Your task to perform on an android device: Go to Wikipedia Image 0: 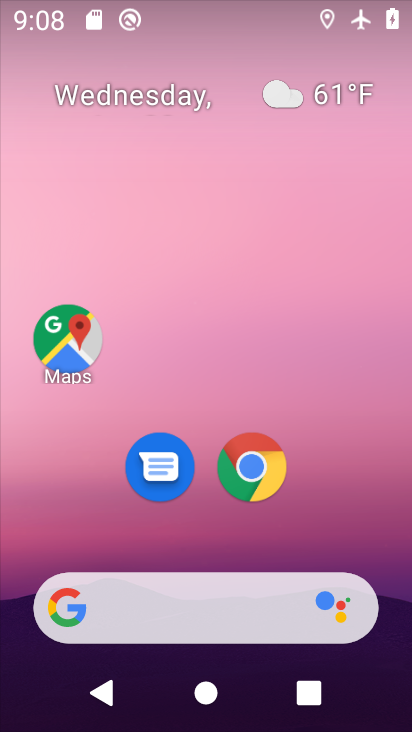
Step 0: drag from (343, 529) to (343, 129)
Your task to perform on an android device: Go to Wikipedia Image 1: 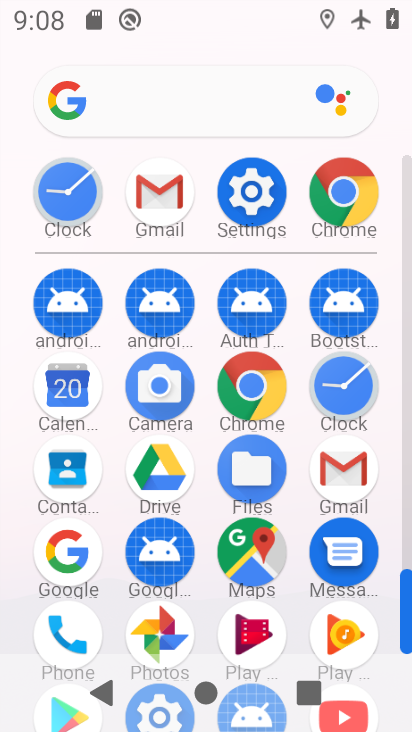
Step 1: click (329, 203)
Your task to perform on an android device: Go to Wikipedia Image 2: 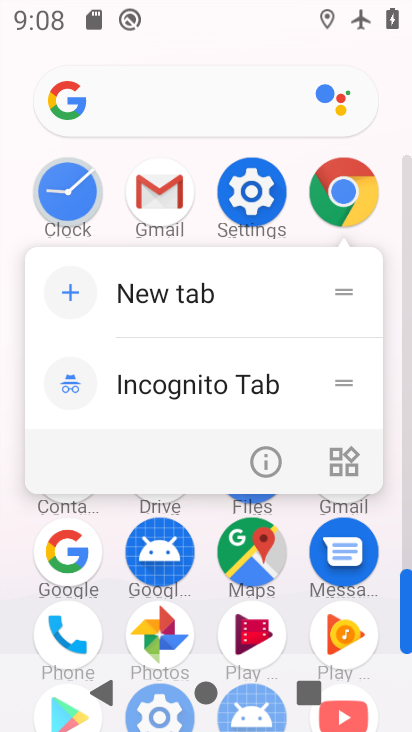
Step 2: click (329, 203)
Your task to perform on an android device: Go to Wikipedia Image 3: 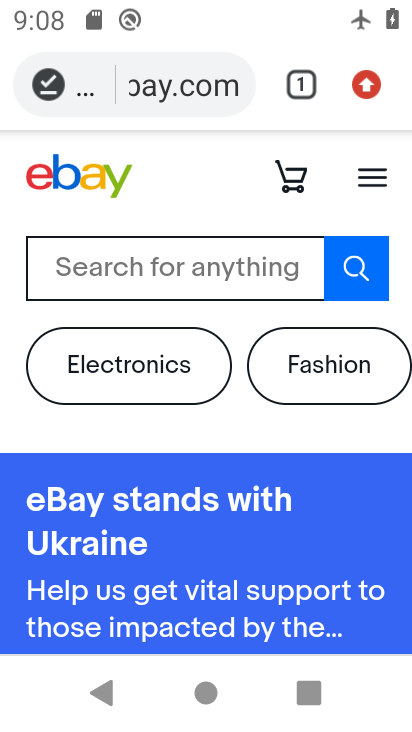
Step 3: click (367, 86)
Your task to perform on an android device: Go to Wikipedia Image 4: 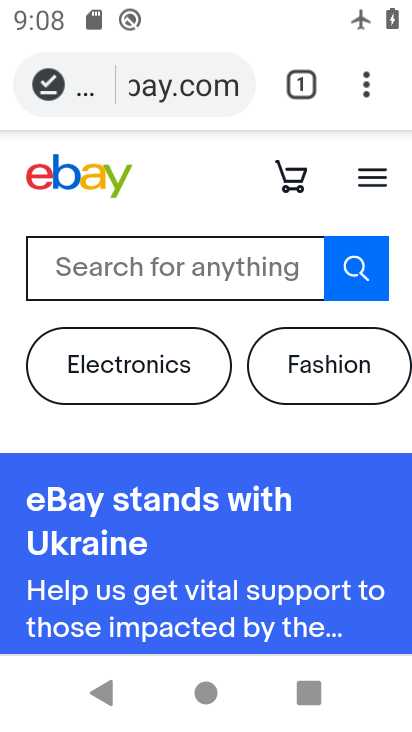
Step 4: drag from (367, 86) to (150, 258)
Your task to perform on an android device: Go to Wikipedia Image 5: 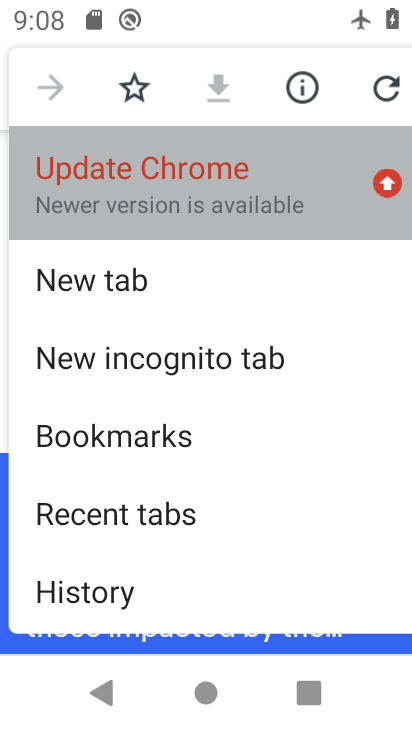
Step 5: click (117, 291)
Your task to perform on an android device: Go to Wikipedia Image 6: 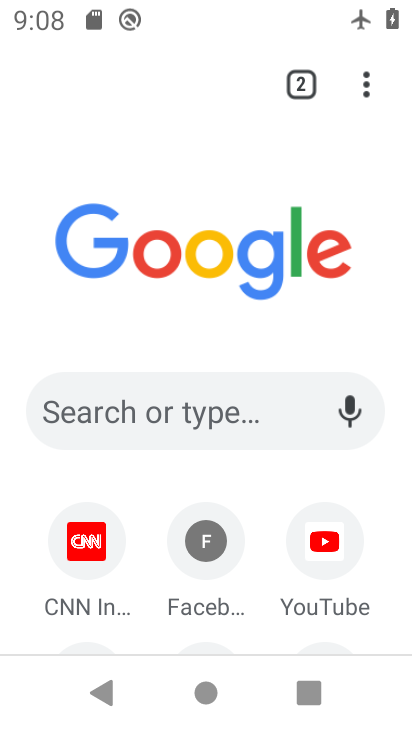
Step 6: drag from (384, 527) to (368, 168)
Your task to perform on an android device: Go to Wikipedia Image 7: 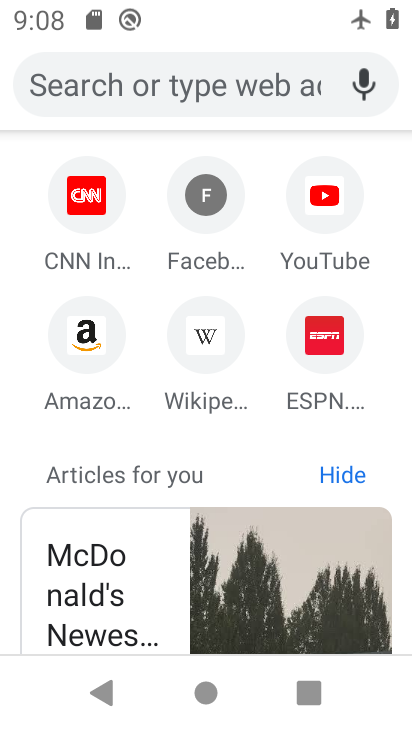
Step 7: click (210, 346)
Your task to perform on an android device: Go to Wikipedia Image 8: 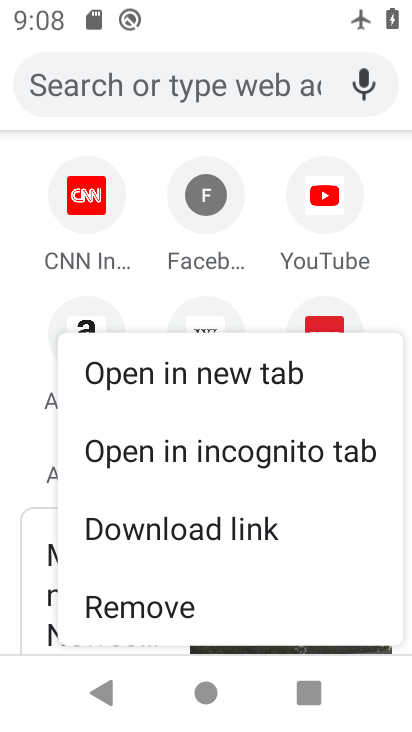
Step 8: click (380, 299)
Your task to perform on an android device: Go to Wikipedia Image 9: 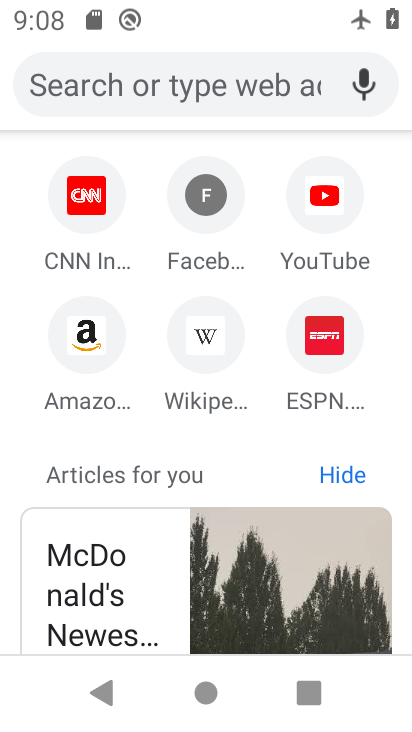
Step 9: click (195, 371)
Your task to perform on an android device: Go to Wikipedia Image 10: 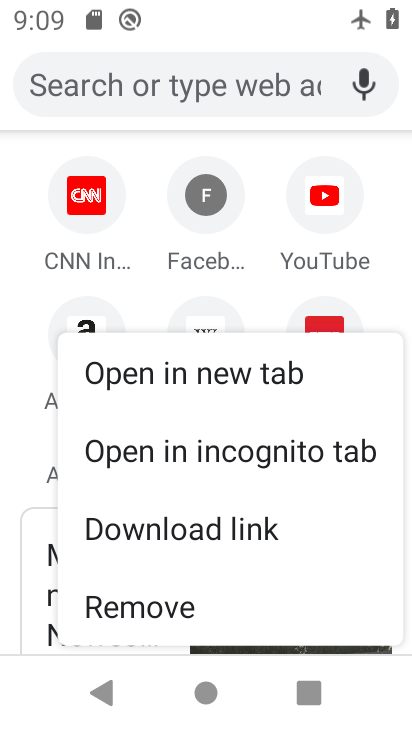
Step 10: click (154, 373)
Your task to perform on an android device: Go to Wikipedia Image 11: 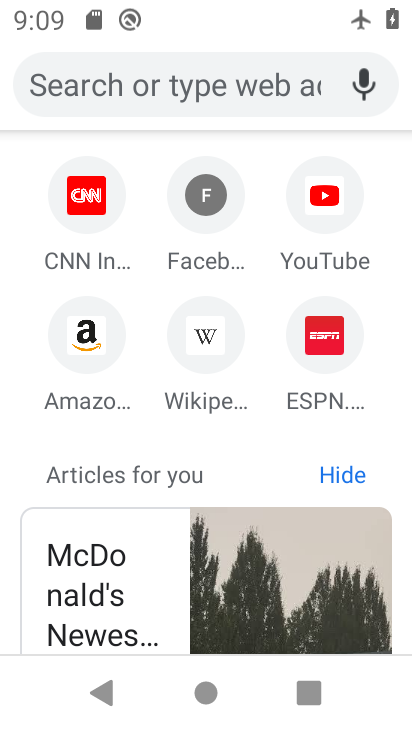
Step 11: click (198, 354)
Your task to perform on an android device: Go to Wikipedia Image 12: 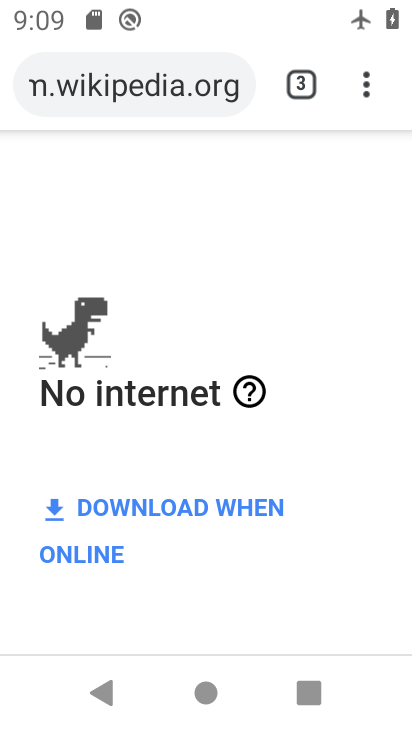
Step 12: task complete